Your task to perform on an android device: check the backup settings in the google photos Image 0: 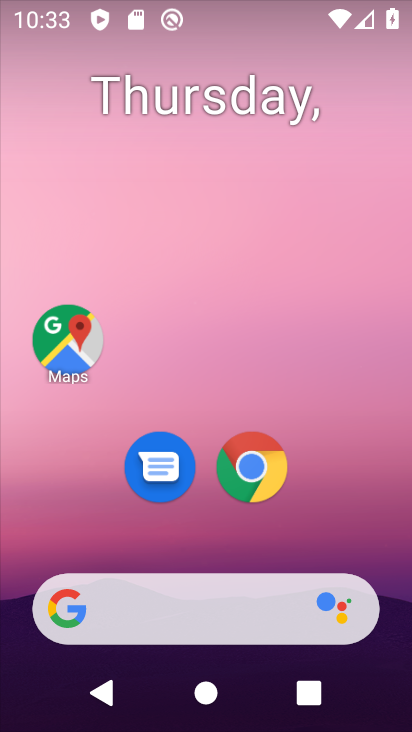
Step 0: drag from (249, 481) to (284, 315)
Your task to perform on an android device: check the backup settings in the google photos Image 1: 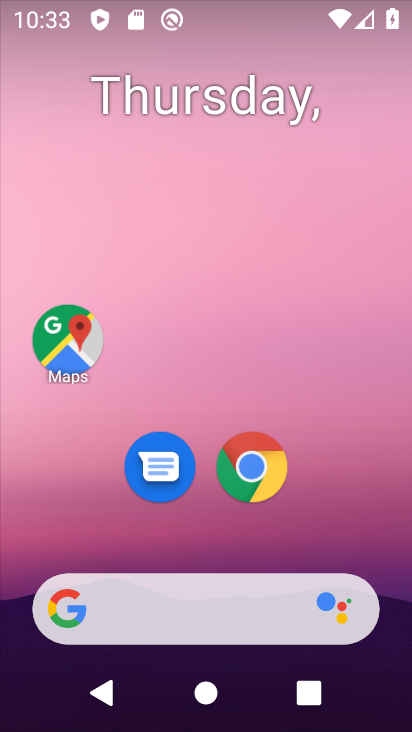
Step 1: drag from (239, 535) to (274, 178)
Your task to perform on an android device: check the backup settings in the google photos Image 2: 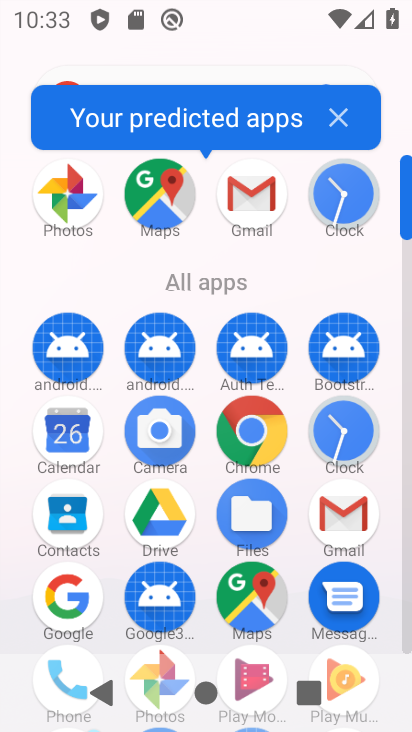
Step 2: click (156, 668)
Your task to perform on an android device: check the backup settings in the google photos Image 3: 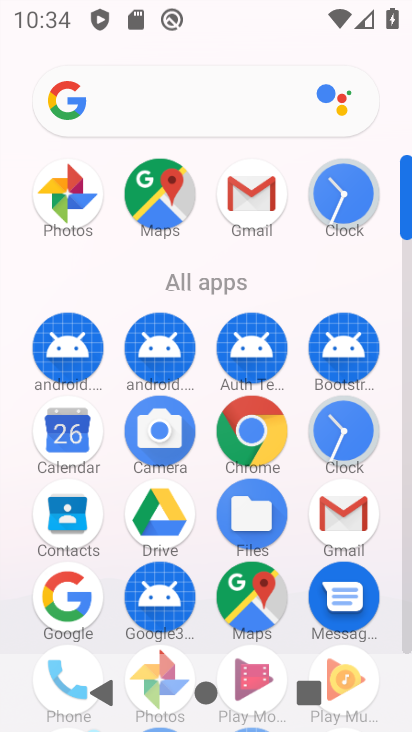
Step 3: drag from (171, 583) to (203, 347)
Your task to perform on an android device: check the backup settings in the google photos Image 4: 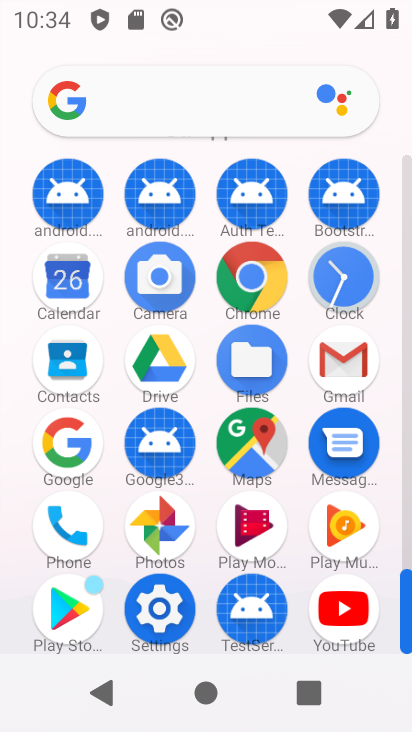
Step 4: click (161, 534)
Your task to perform on an android device: check the backup settings in the google photos Image 5: 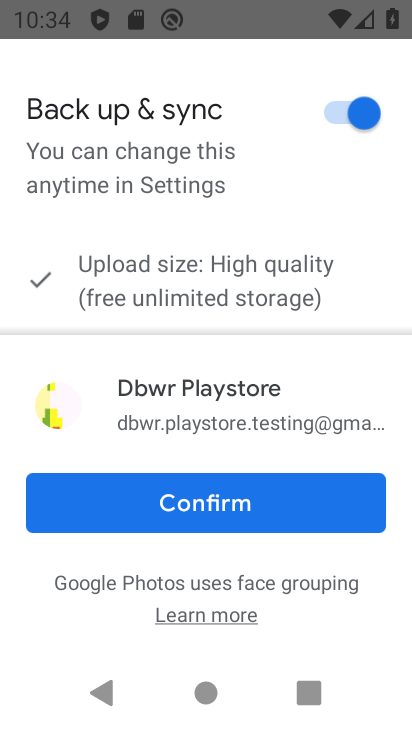
Step 5: click (233, 517)
Your task to perform on an android device: check the backup settings in the google photos Image 6: 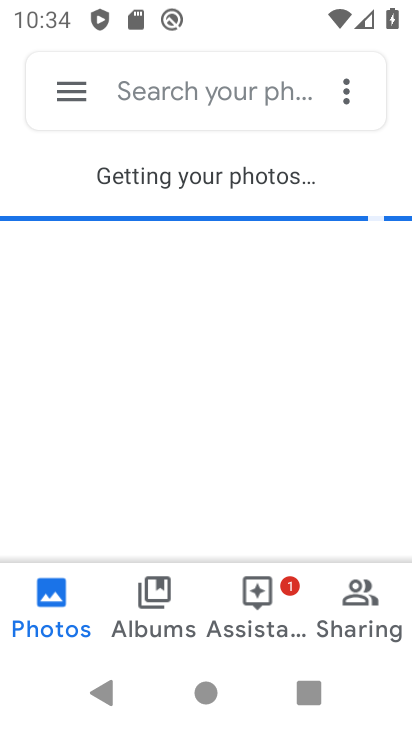
Step 6: click (74, 96)
Your task to perform on an android device: check the backup settings in the google photos Image 7: 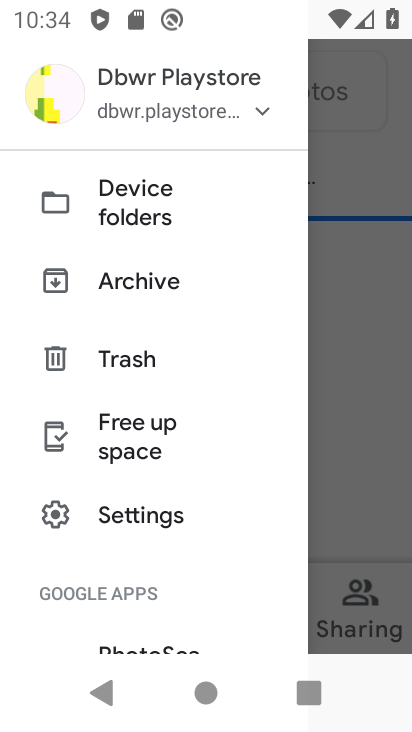
Step 7: click (149, 520)
Your task to perform on an android device: check the backup settings in the google photos Image 8: 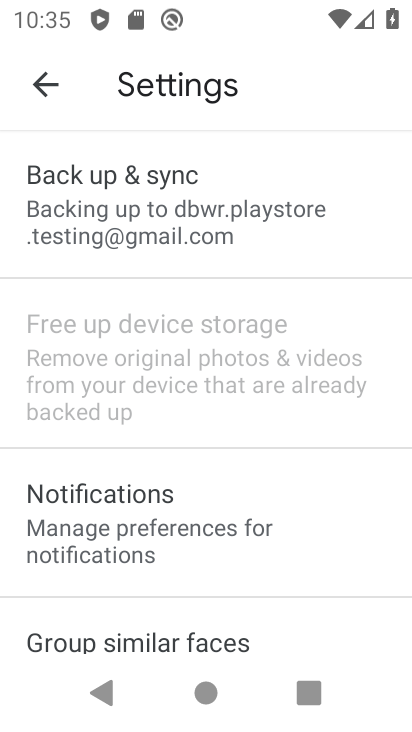
Step 8: click (173, 213)
Your task to perform on an android device: check the backup settings in the google photos Image 9: 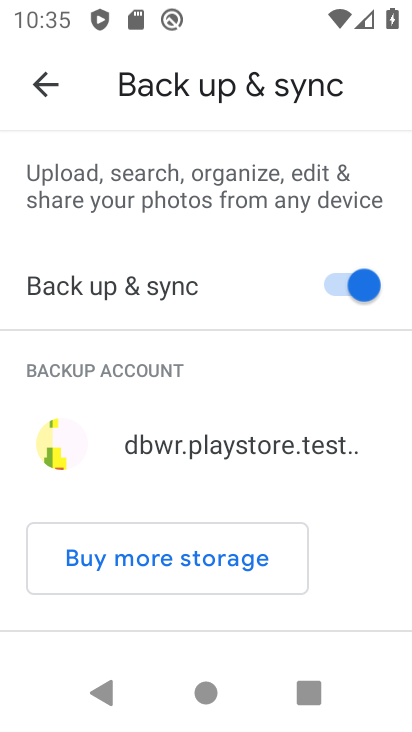
Step 9: task complete